Your task to perform on an android device: What's the weather going to be tomorrow? Image 0: 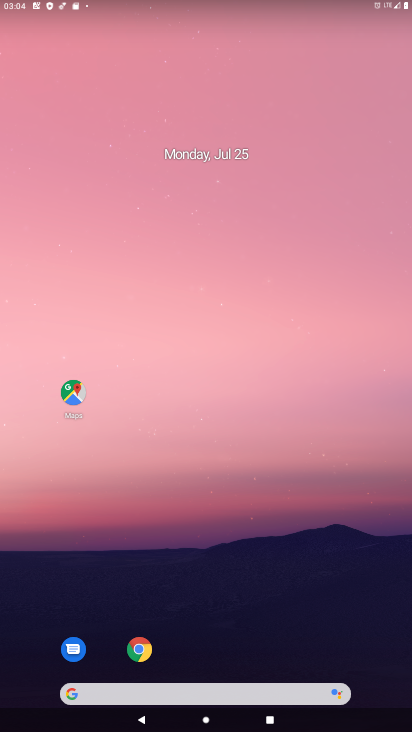
Step 0: drag from (6, 308) to (409, 324)
Your task to perform on an android device: What's the weather going to be tomorrow? Image 1: 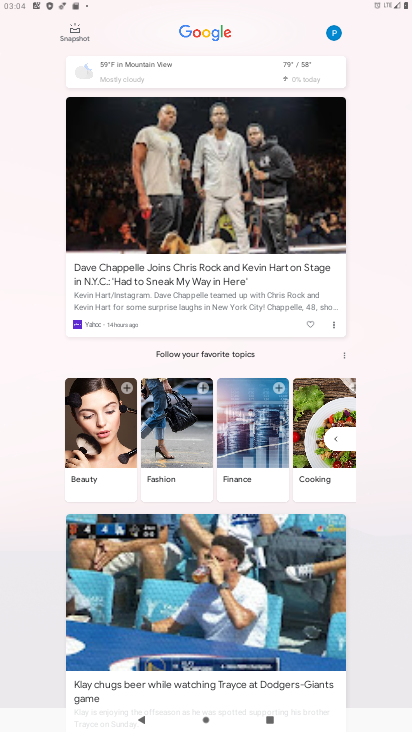
Step 1: click (282, 62)
Your task to perform on an android device: What's the weather going to be tomorrow? Image 2: 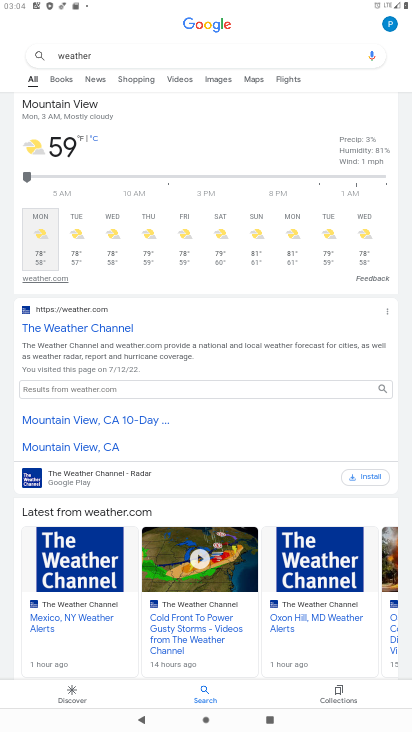
Step 2: task complete